Your task to perform on an android device: toggle sleep mode Image 0: 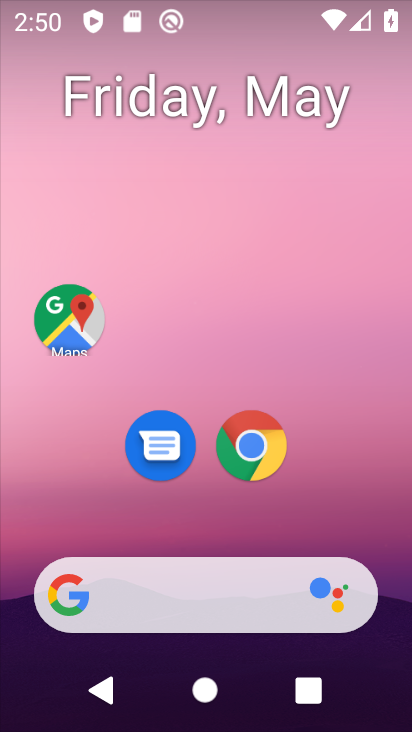
Step 0: drag from (352, 550) to (101, 3)
Your task to perform on an android device: toggle sleep mode Image 1: 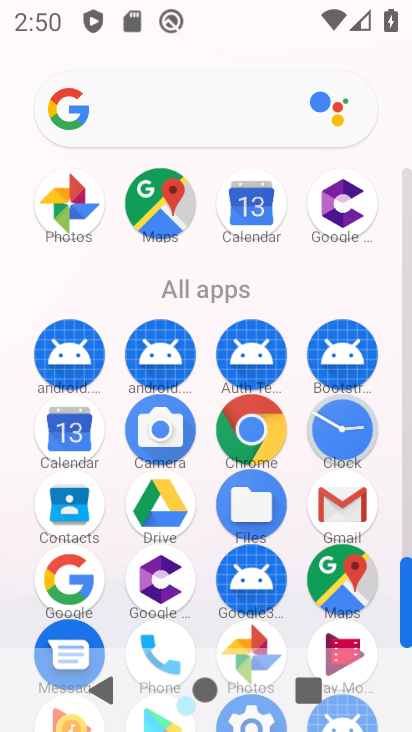
Step 1: drag from (214, 583) to (176, 408)
Your task to perform on an android device: toggle sleep mode Image 2: 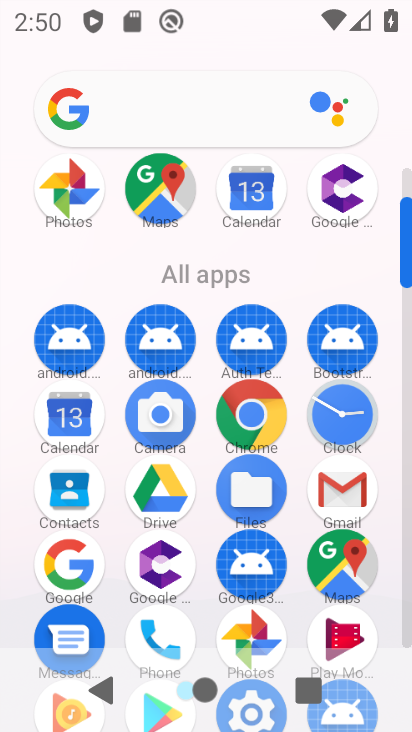
Step 2: drag from (200, 632) to (182, 429)
Your task to perform on an android device: toggle sleep mode Image 3: 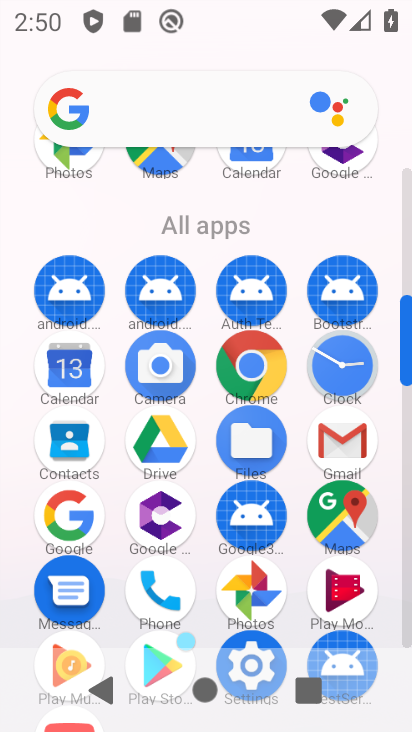
Step 3: drag from (269, 632) to (261, 290)
Your task to perform on an android device: toggle sleep mode Image 4: 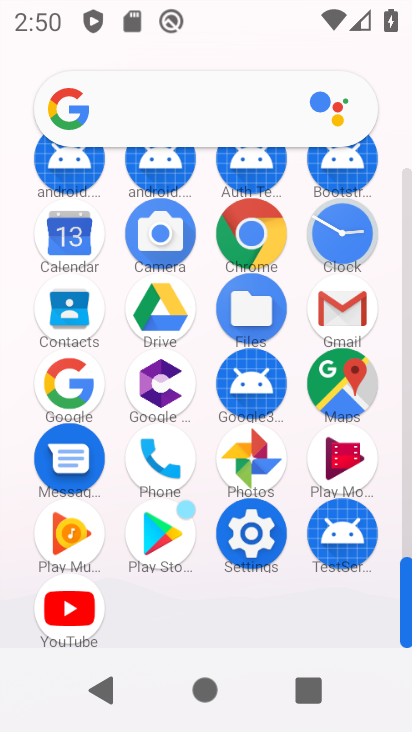
Step 4: drag from (291, 558) to (274, 308)
Your task to perform on an android device: toggle sleep mode Image 5: 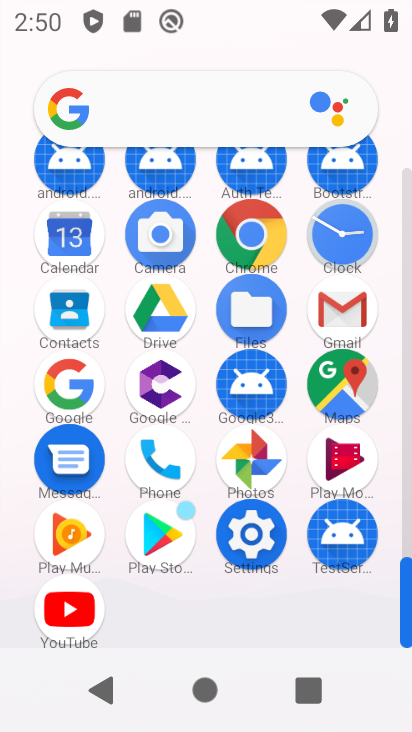
Step 5: click (265, 533)
Your task to perform on an android device: toggle sleep mode Image 6: 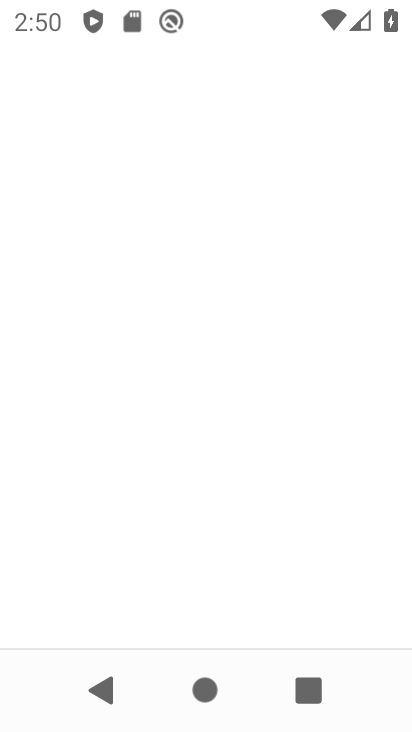
Step 6: click (266, 532)
Your task to perform on an android device: toggle sleep mode Image 7: 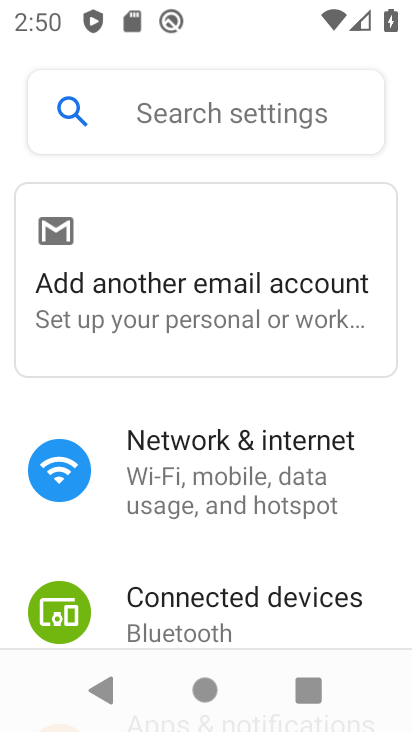
Step 7: drag from (159, 504) to (137, 275)
Your task to perform on an android device: toggle sleep mode Image 8: 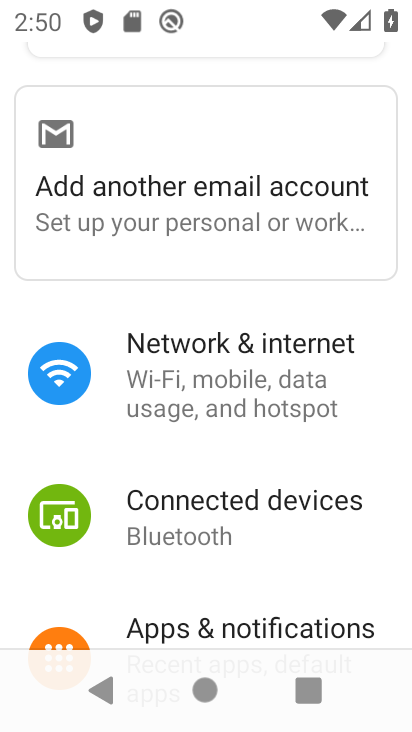
Step 8: drag from (232, 553) to (300, 77)
Your task to perform on an android device: toggle sleep mode Image 9: 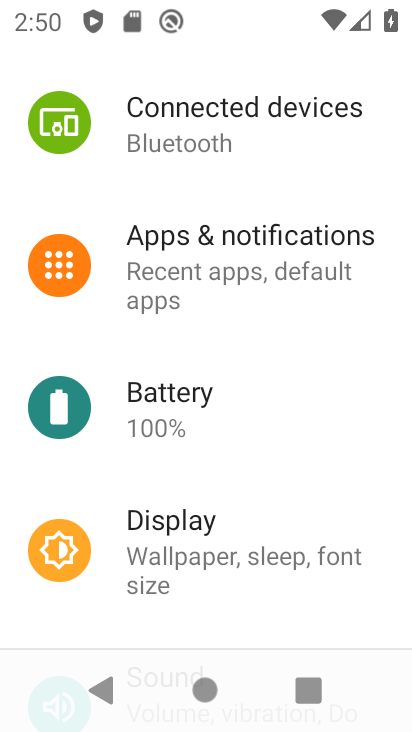
Step 9: drag from (178, 475) to (147, 103)
Your task to perform on an android device: toggle sleep mode Image 10: 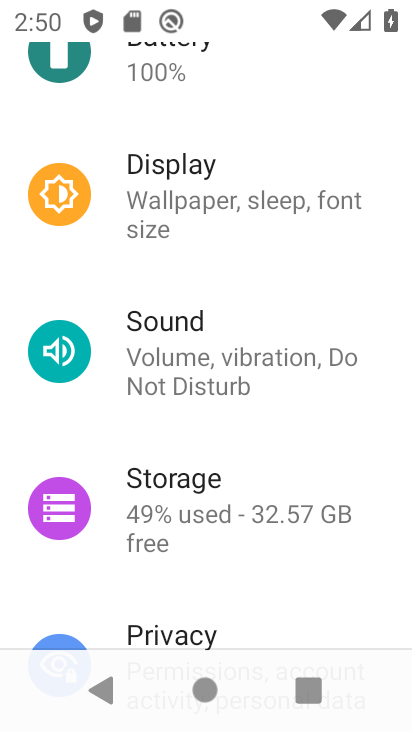
Step 10: click (174, 189)
Your task to perform on an android device: toggle sleep mode Image 11: 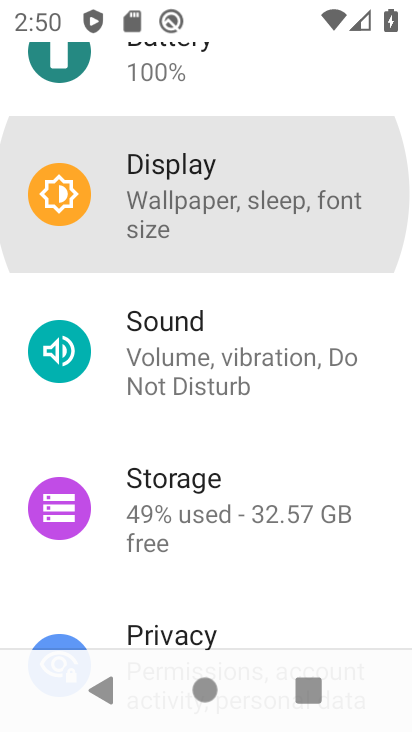
Step 11: click (174, 189)
Your task to perform on an android device: toggle sleep mode Image 12: 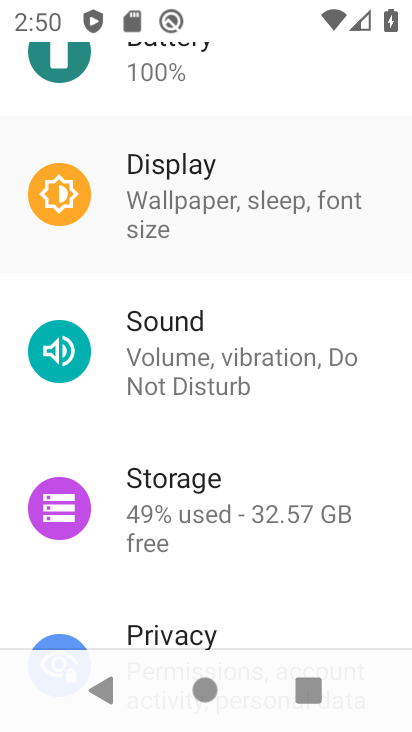
Step 12: click (175, 188)
Your task to perform on an android device: toggle sleep mode Image 13: 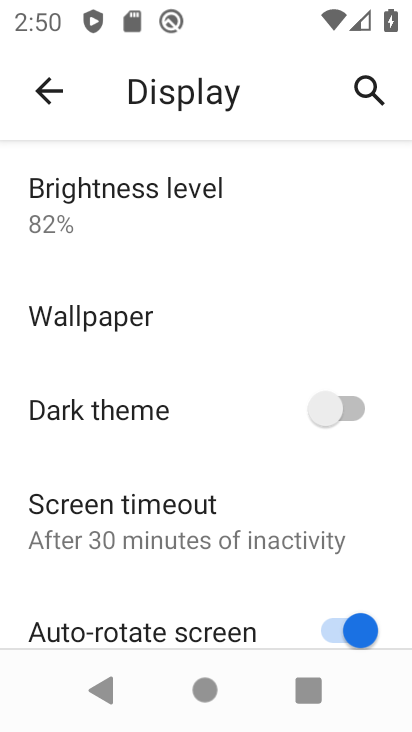
Step 13: drag from (233, 518) to (242, 101)
Your task to perform on an android device: toggle sleep mode Image 14: 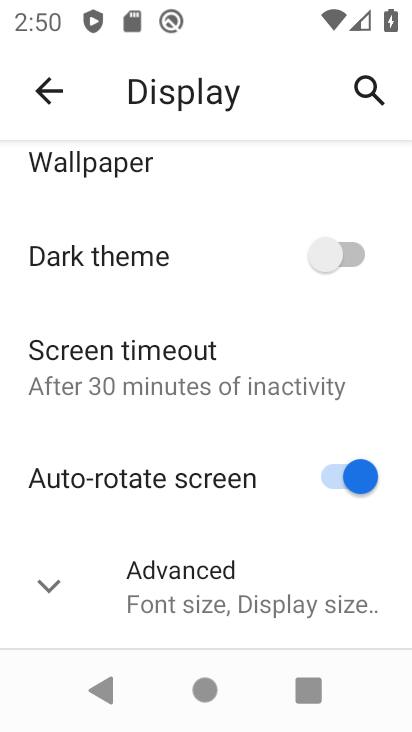
Step 14: click (189, 587)
Your task to perform on an android device: toggle sleep mode Image 15: 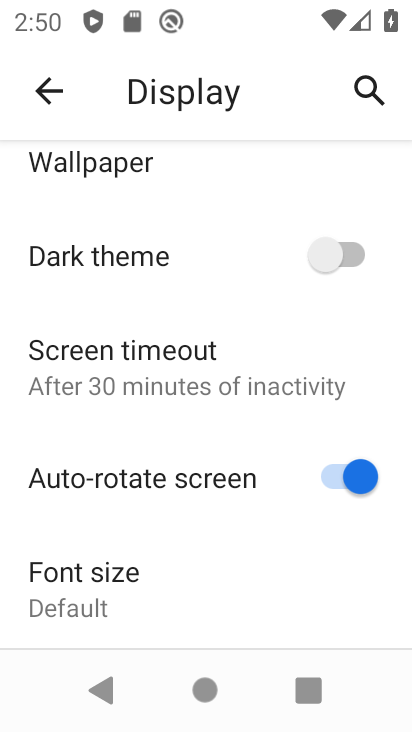
Step 15: drag from (183, 304) to (213, 208)
Your task to perform on an android device: toggle sleep mode Image 16: 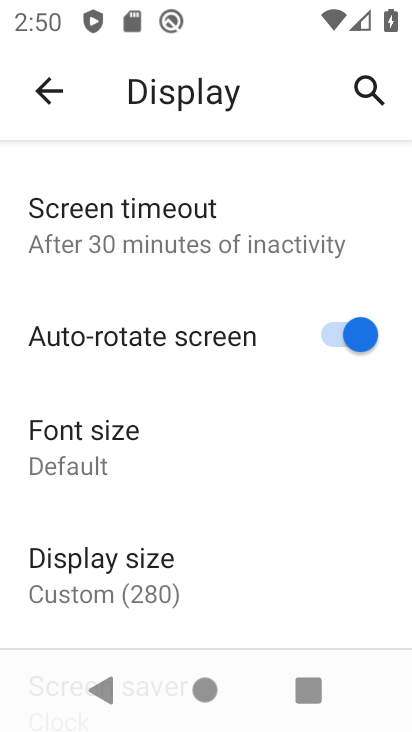
Step 16: click (93, 221)
Your task to perform on an android device: toggle sleep mode Image 17: 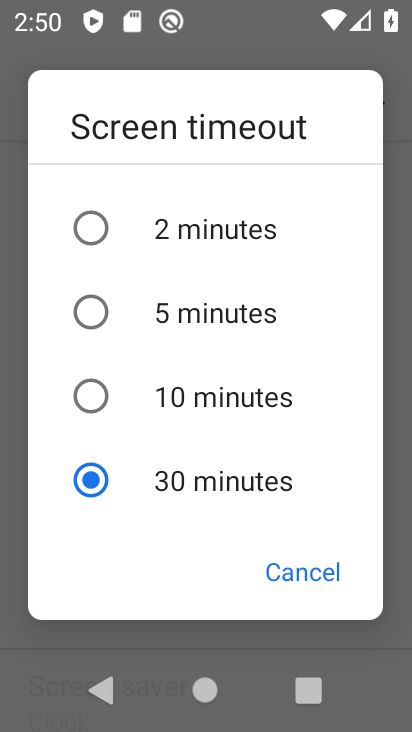
Step 17: click (82, 387)
Your task to perform on an android device: toggle sleep mode Image 18: 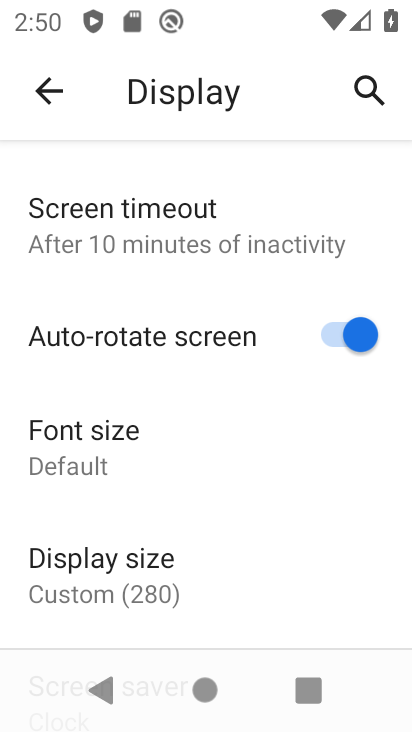
Step 18: task complete